Your task to perform on an android device: check android version Image 0: 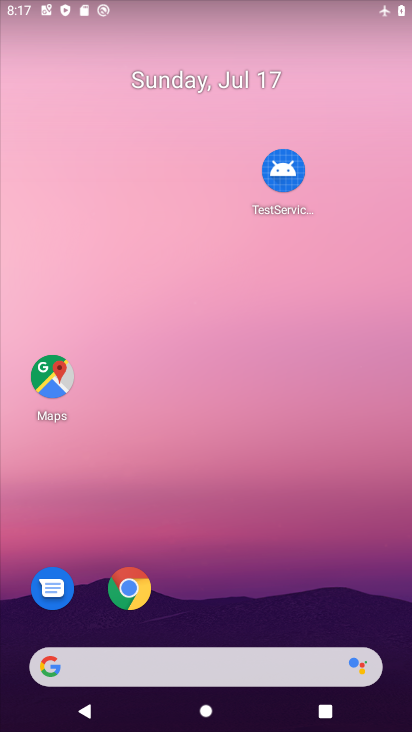
Step 0: drag from (217, 648) to (243, 122)
Your task to perform on an android device: check android version Image 1: 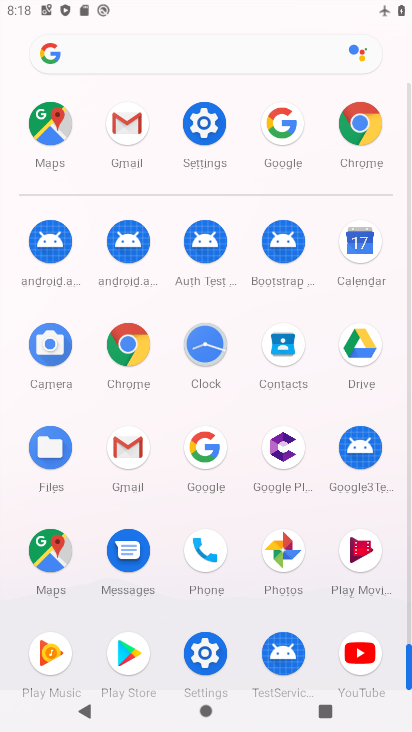
Step 1: click (213, 163)
Your task to perform on an android device: check android version Image 2: 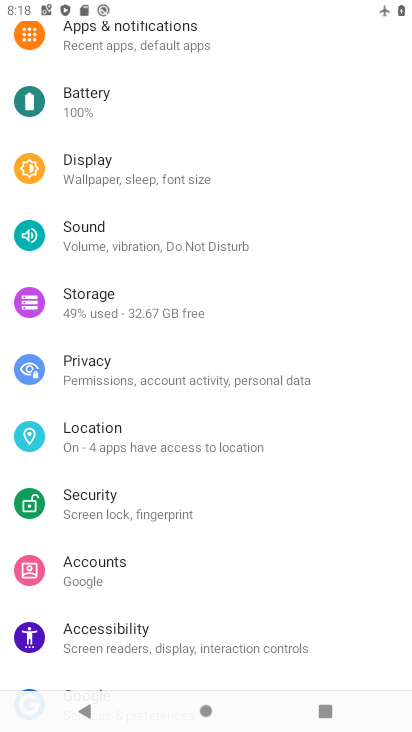
Step 2: drag from (163, 547) to (241, 22)
Your task to perform on an android device: check android version Image 3: 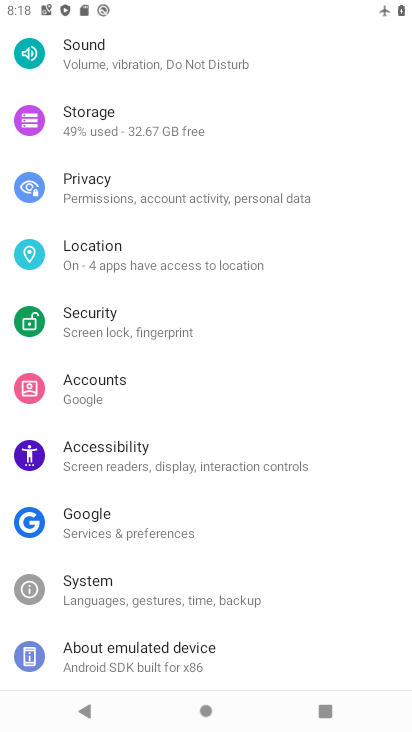
Step 3: click (180, 663)
Your task to perform on an android device: check android version Image 4: 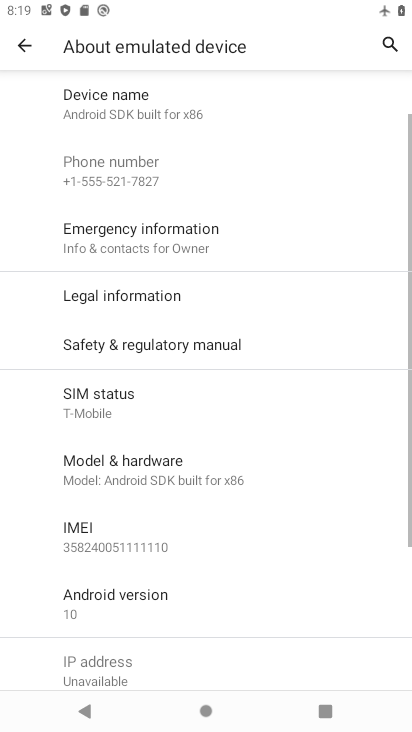
Step 4: drag from (174, 227) to (126, 730)
Your task to perform on an android device: check android version Image 5: 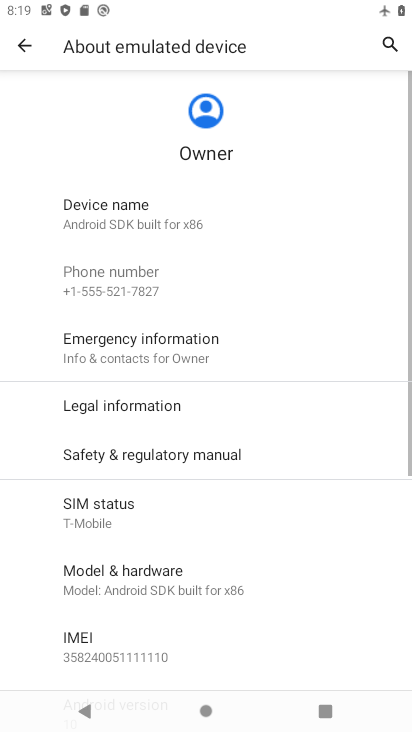
Step 5: drag from (152, 546) to (199, 208)
Your task to perform on an android device: check android version Image 6: 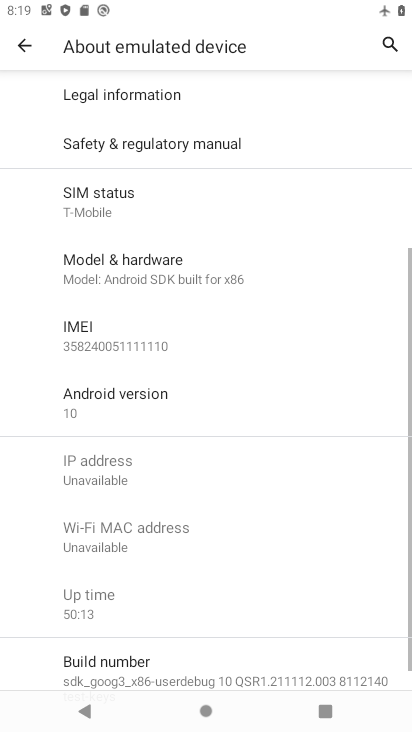
Step 6: click (154, 416)
Your task to perform on an android device: check android version Image 7: 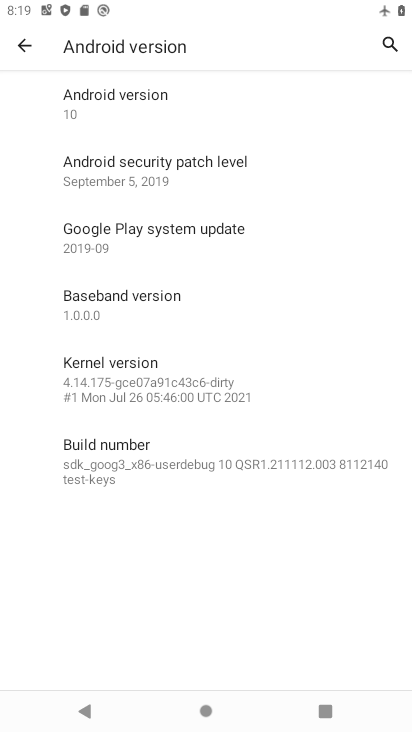
Step 7: click (233, 110)
Your task to perform on an android device: check android version Image 8: 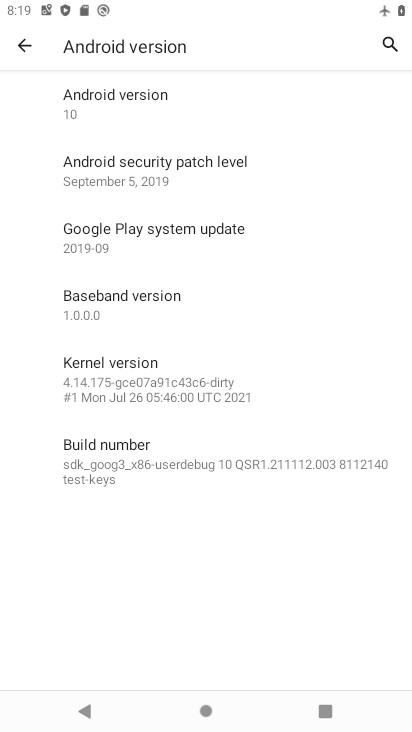
Step 8: task complete